Your task to perform on an android device: turn on data saver in the chrome app Image 0: 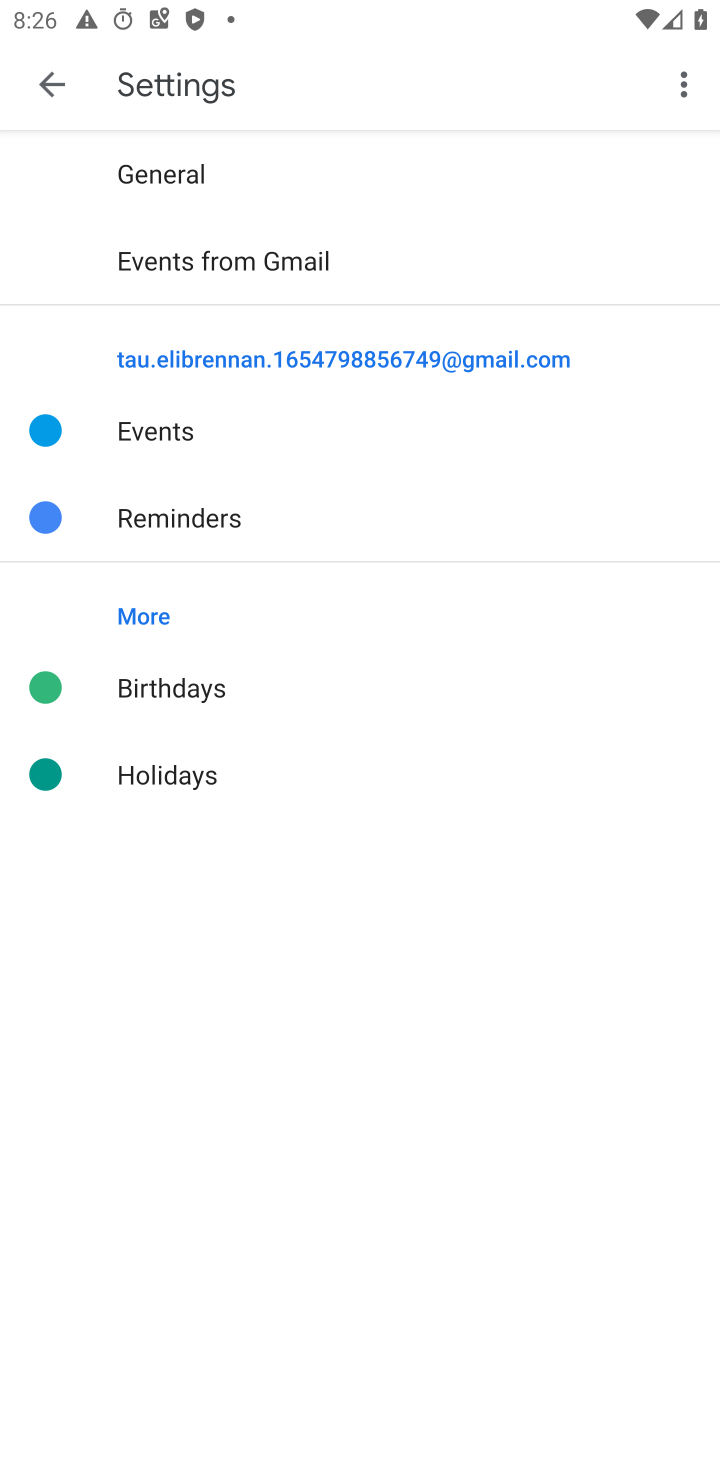
Step 0: press home button
Your task to perform on an android device: turn on data saver in the chrome app Image 1: 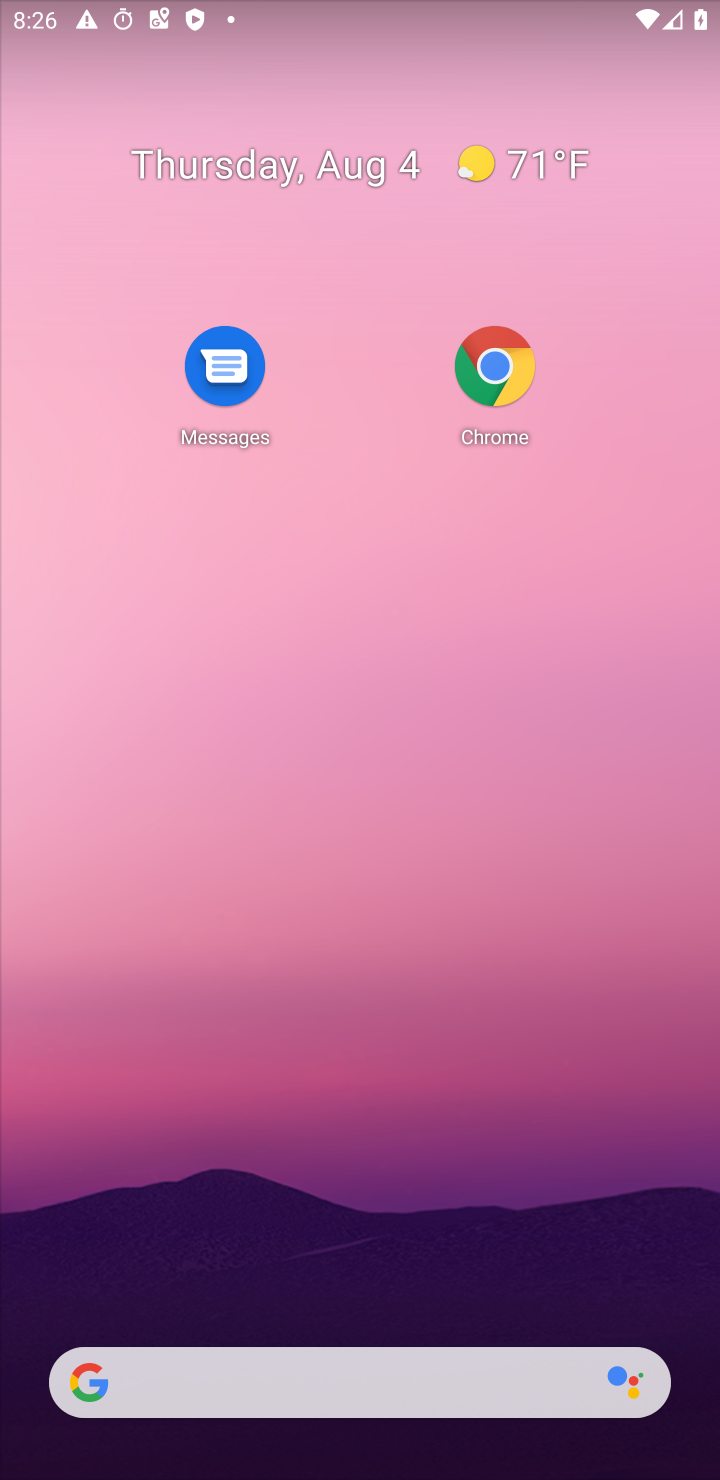
Step 1: drag from (349, 1422) to (342, 542)
Your task to perform on an android device: turn on data saver in the chrome app Image 2: 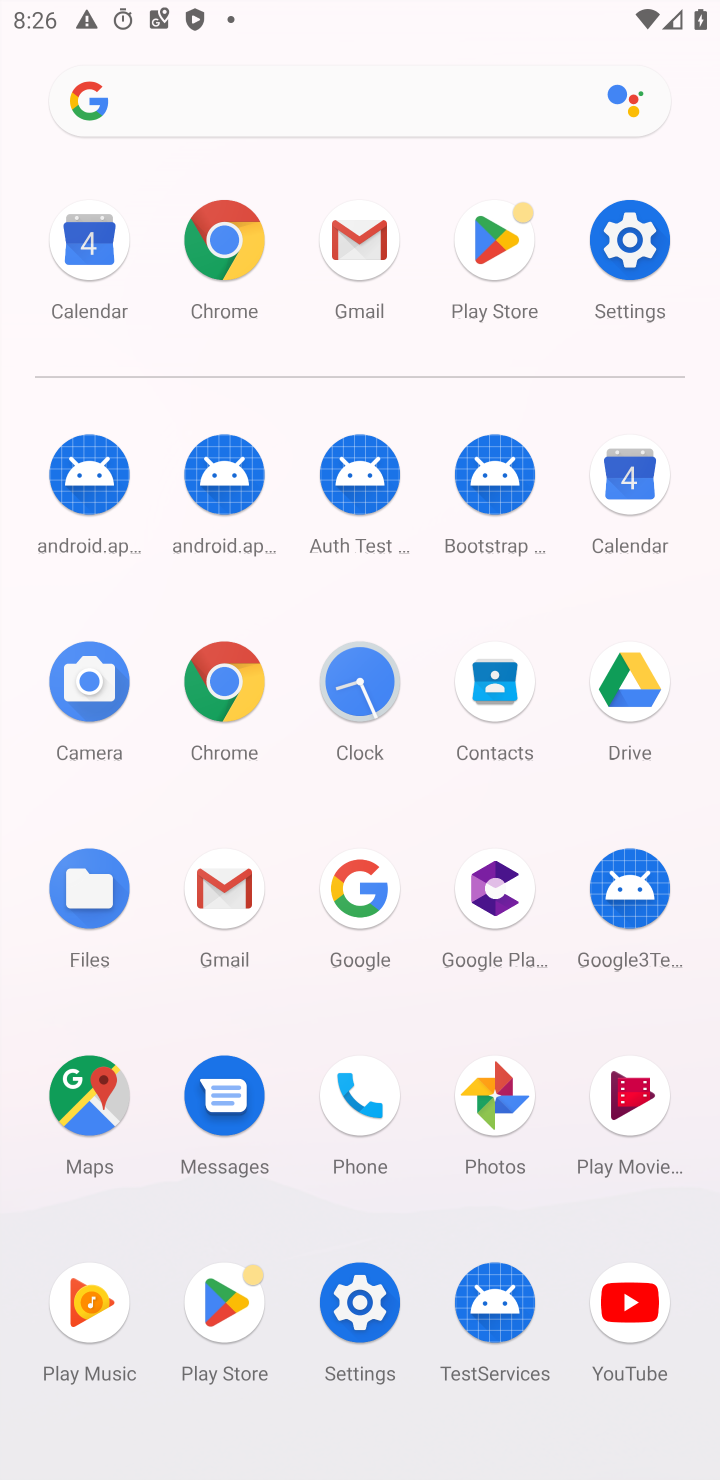
Step 2: click (195, 245)
Your task to perform on an android device: turn on data saver in the chrome app Image 3: 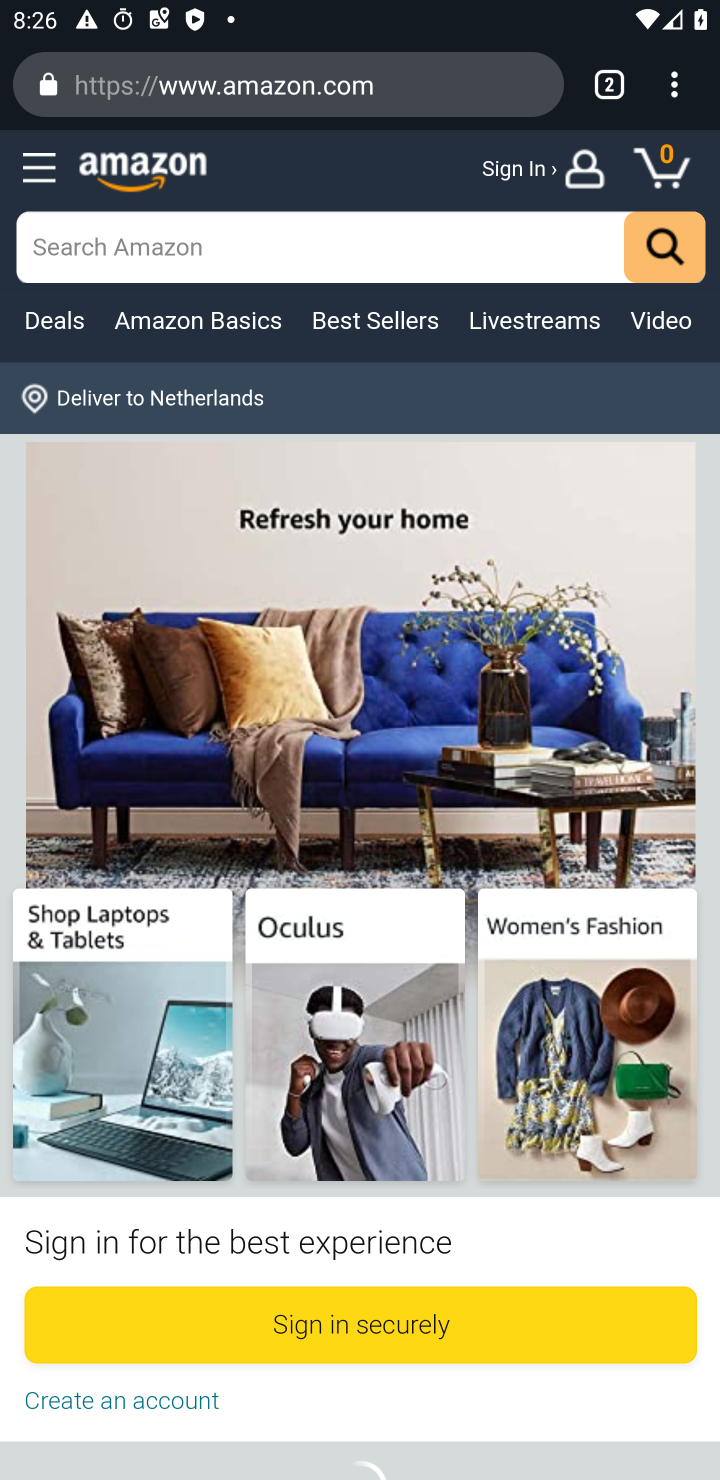
Step 3: click (672, 96)
Your task to perform on an android device: turn on data saver in the chrome app Image 4: 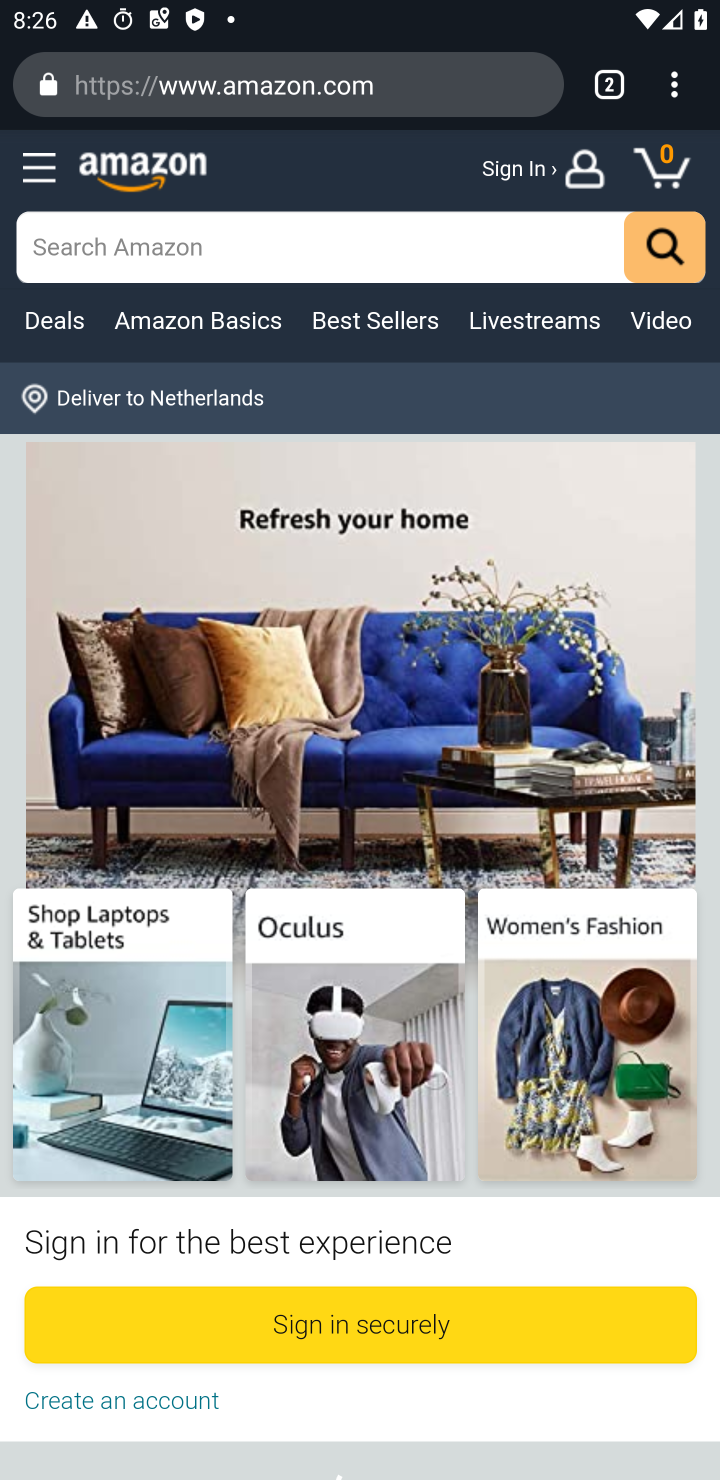
Step 4: click (681, 98)
Your task to perform on an android device: turn on data saver in the chrome app Image 5: 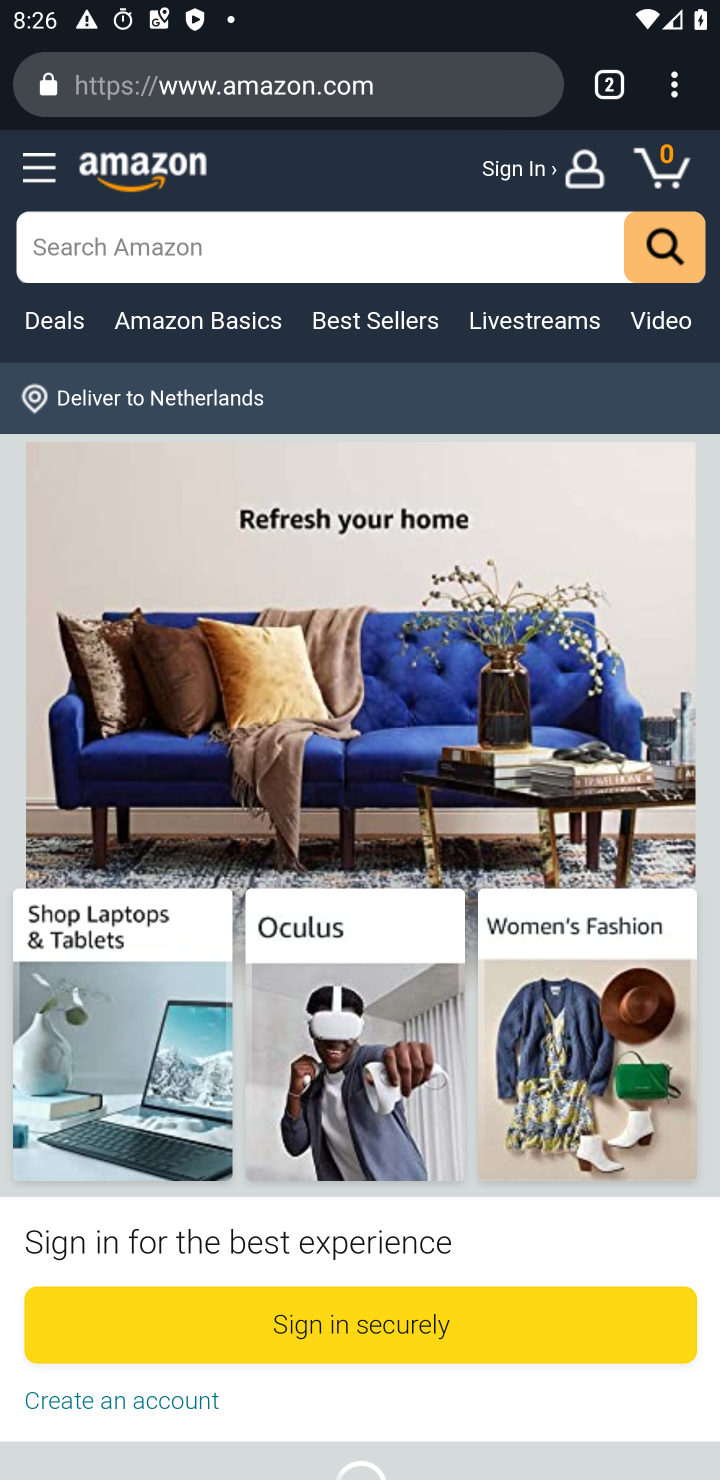
Step 5: click (674, 84)
Your task to perform on an android device: turn on data saver in the chrome app Image 6: 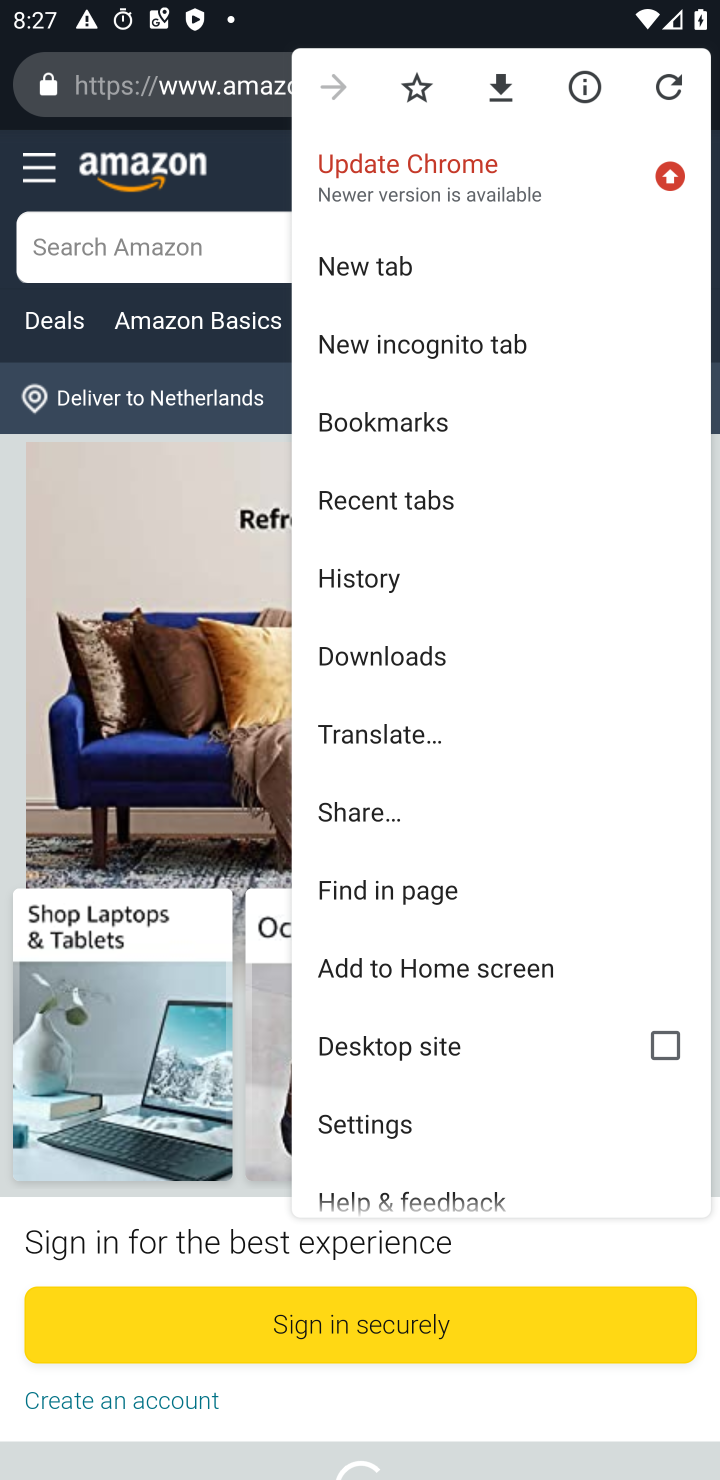
Step 6: click (359, 1109)
Your task to perform on an android device: turn on data saver in the chrome app Image 7: 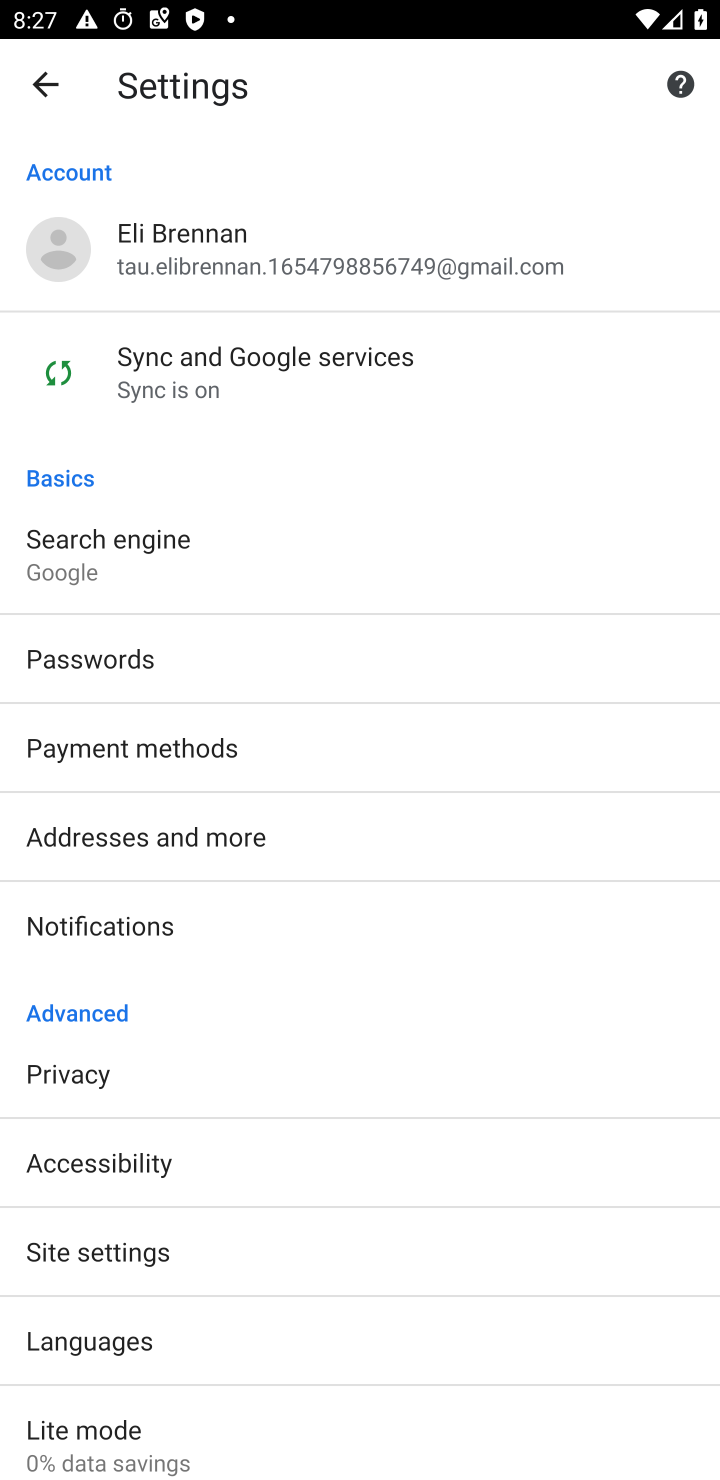
Step 7: click (173, 1441)
Your task to perform on an android device: turn on data saver in the chrome app Image 8: 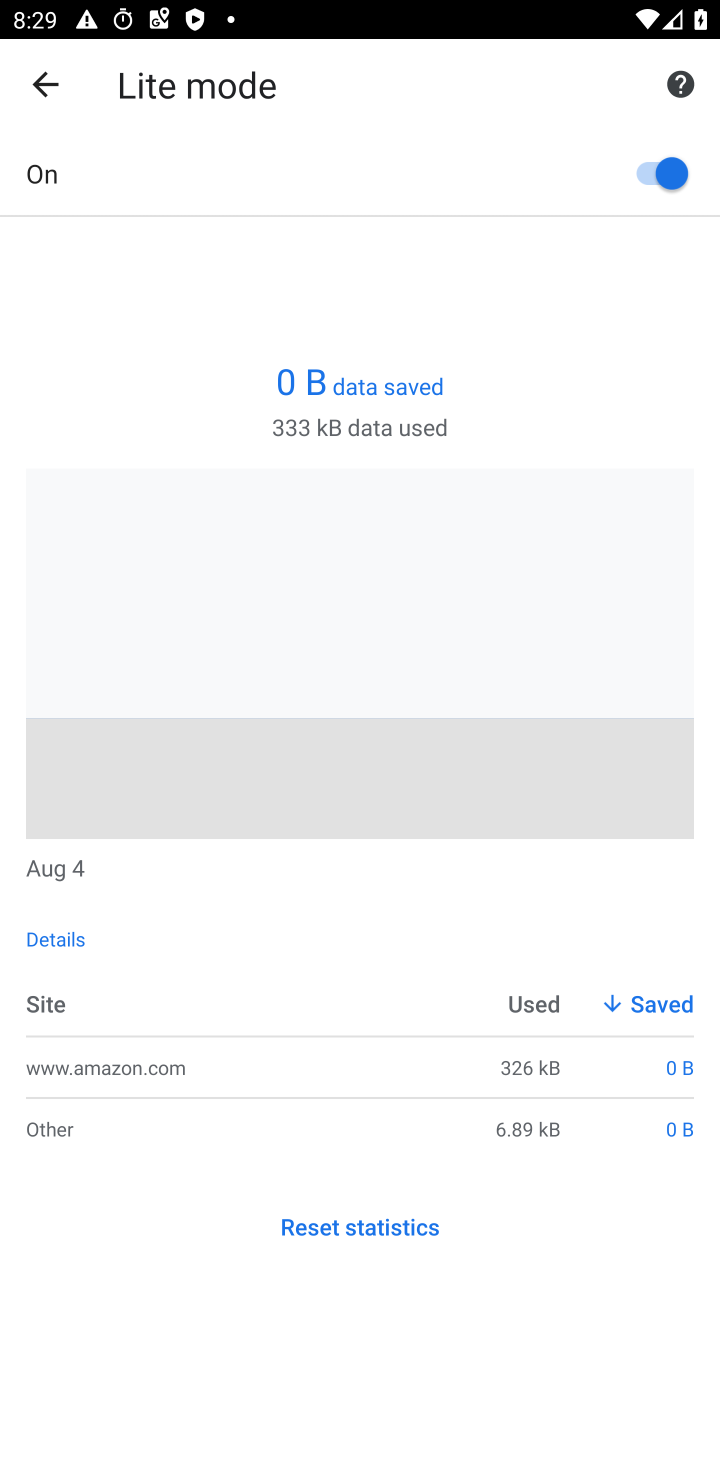
Step 8: task complete